Your task to perform on an android device: toggle airplane mode Image 0: 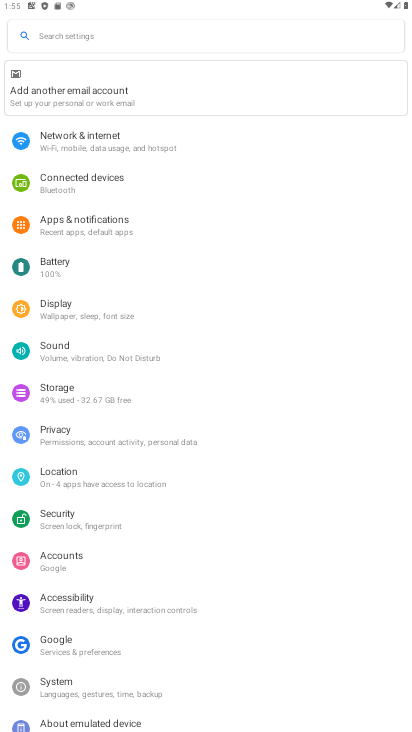
Step 0: click (87, 133)
Your task to perform on an android device: toggle airplane mode Image 1: 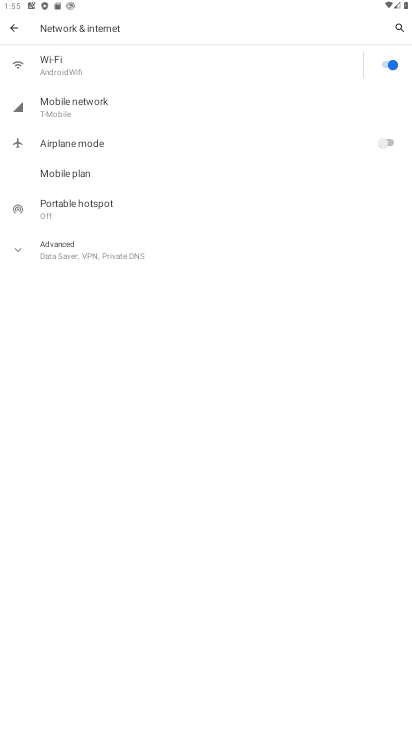
Step 1: click (388, 136)
Your task to perform on an android device: toggle airplane mode Image 2: 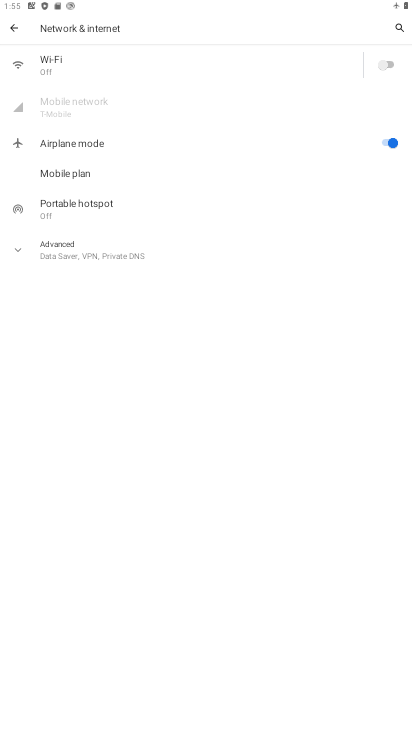
Step 2: task complete